Your task to perform on an android device: Open Chrome and go to settings Image 0: 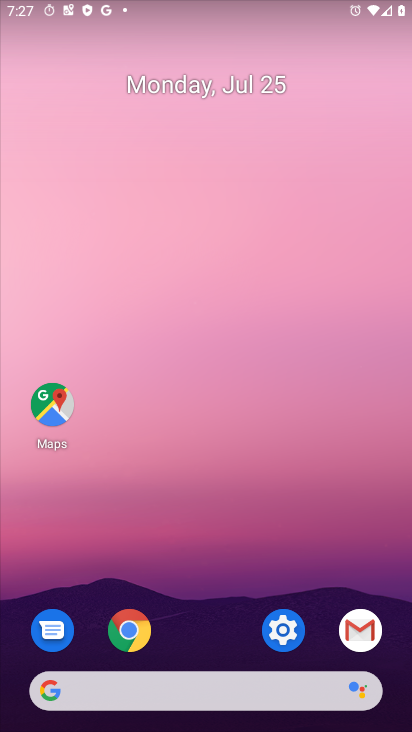
Step 0: click (136, 641)
Your task to perform on an android device: Open Chrome and go to settings Image 1: 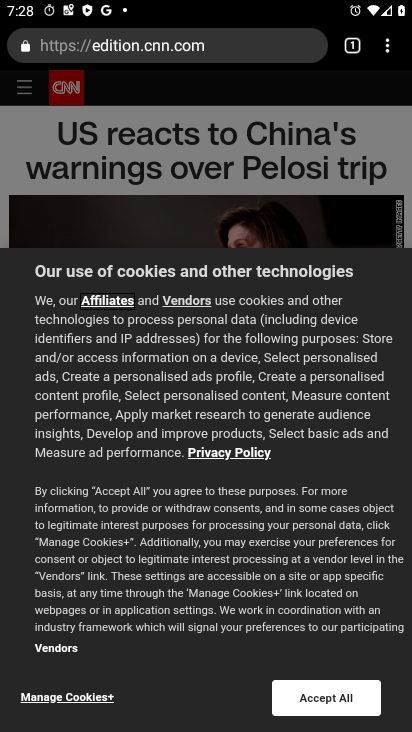
Step 1: click (390, 46)
Your task to perform on an android device: Open Chrome and go to settings Image 2: 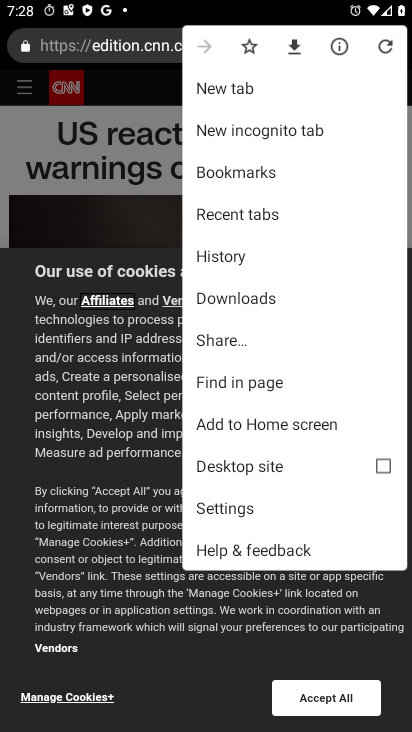
Step 2: click (237, 503)
Your task to perform on an android device: Open Chrome and go to settings Image 3: 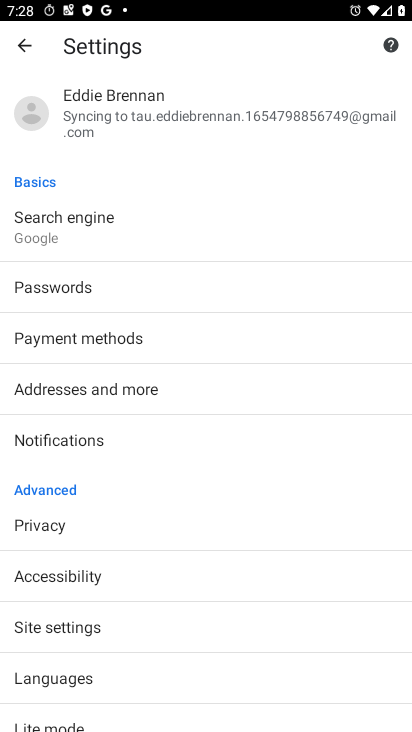
Step 3: task complete